Your task to perform on an android device: open app "Pandora - Music & Podcasts" Image 0: 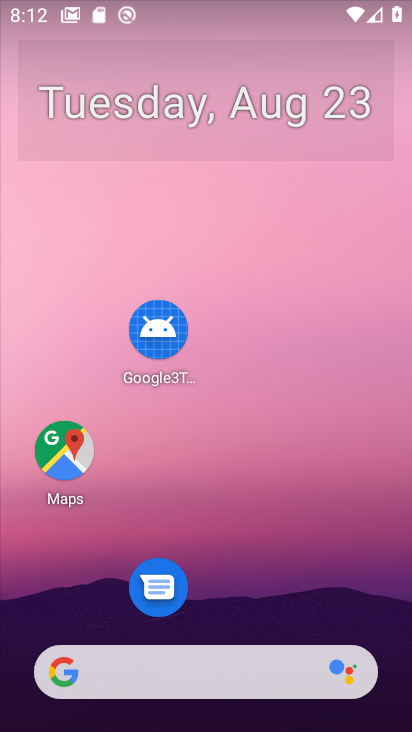
Step 0: drag from (232, 580) to (252, 100)
Your task to perform on an android device: open app "Pandora - Music & Podcasts" Image 1: 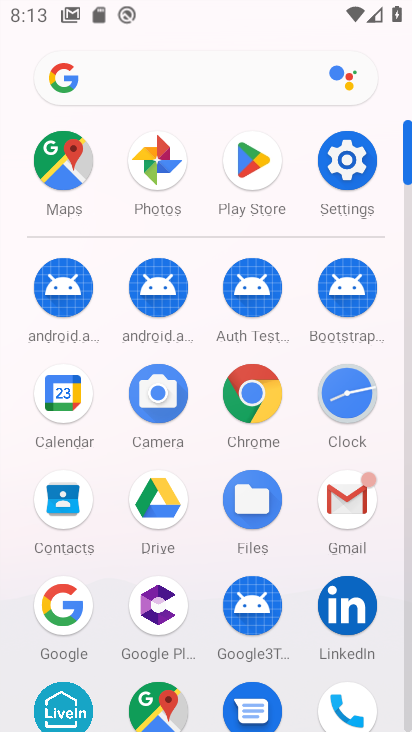
Step 1: click (246, 157)
Your task to perform on an android device: open app "Pandora - Music & Podcasts" Image 2: 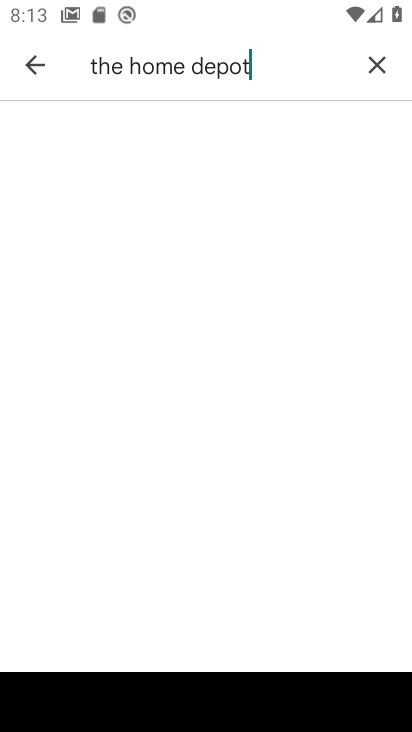
Step 2: click (370, 75)
Your task to perform on an android device: open app "Pandora - Music & Podcasts" Image 3: 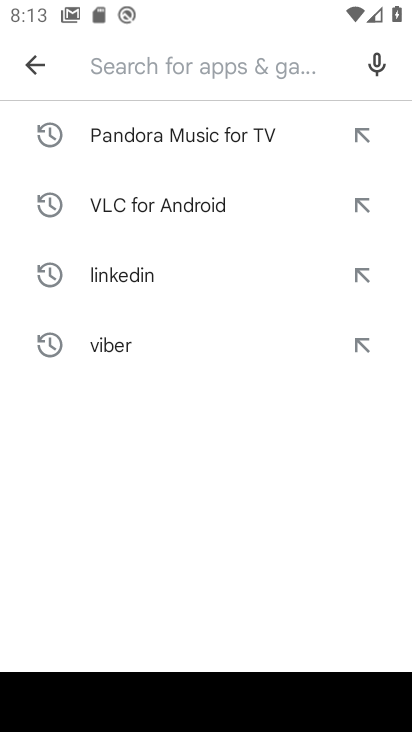
Step 3: type "pandora"
Your task to perform on an android device: open app "Pandora - Music & Podcasts" Image 4: 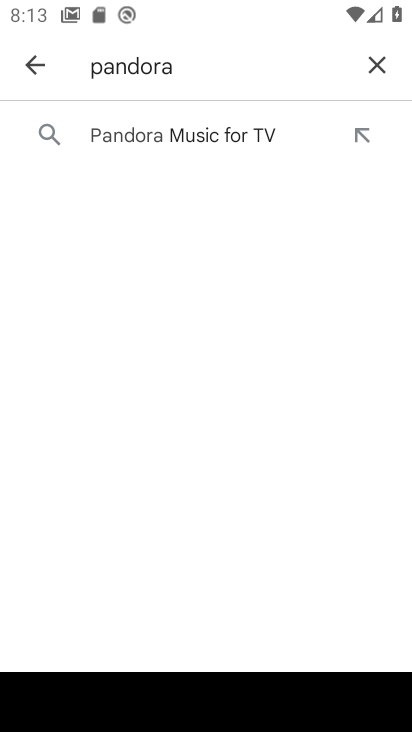
Step 4: click (172, 146)
Your task to perform on an android device: open app "Pandora - Music & Podcasts" Image 5: 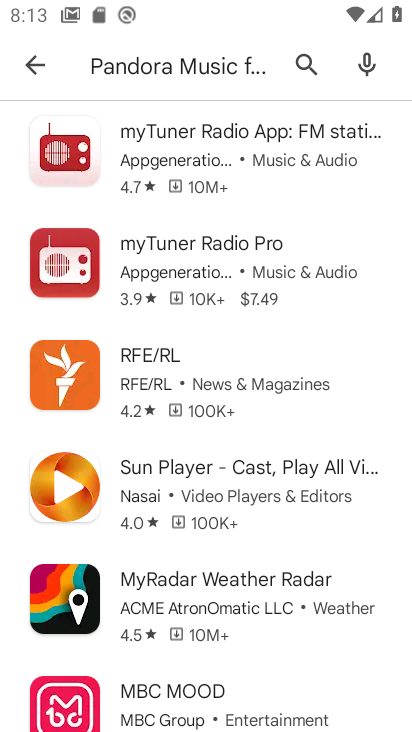
Step 5: task complete